Your task to perform on an android device: open chrome privacy settings Image 0: 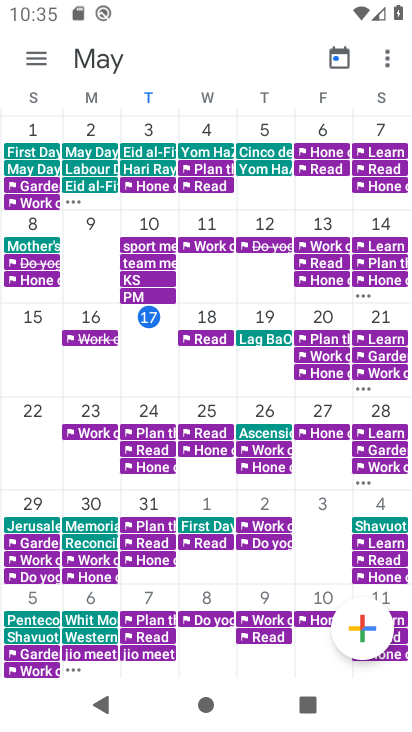
Step 0: press home button
Your task to perform on an android device: open chrome privacy settings Image 1: 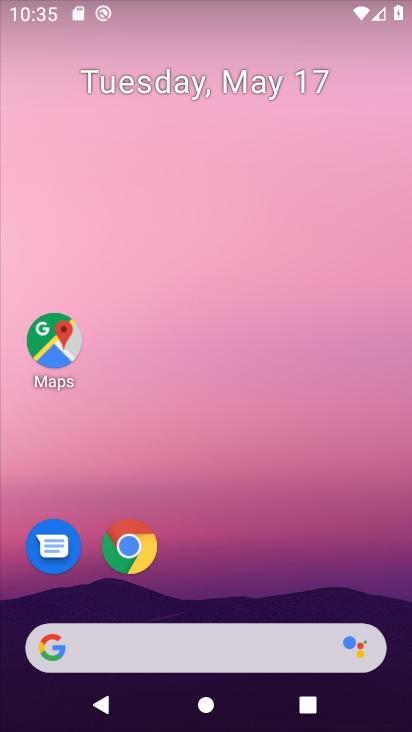
Step 1: drag from (246, 565) to (237, 165)
Your task to perform on an android device: open chrome privacy settings Image 2: 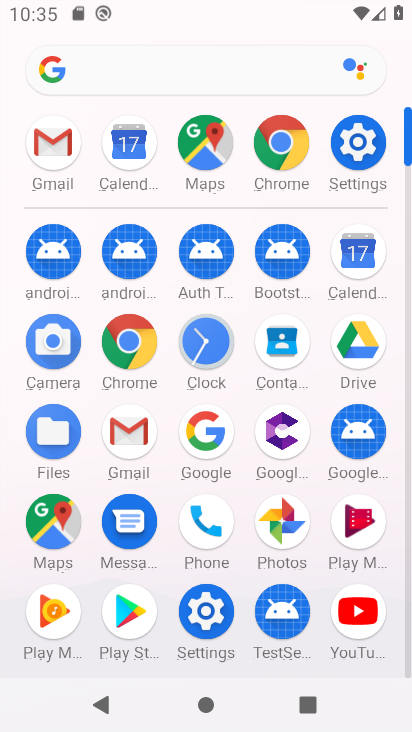
Step 2: click (365, 138)
Your task to perform on an android device: open chrome privacy settings Image 3: 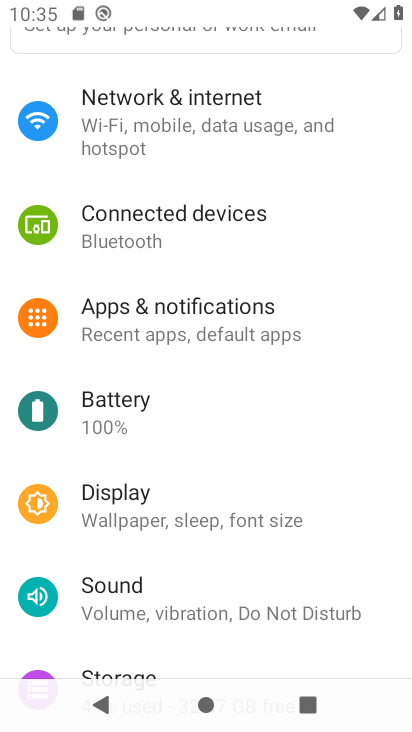
Step 3: press home button
Your task to perform on an android device: open chrome privacy settings Image 4: 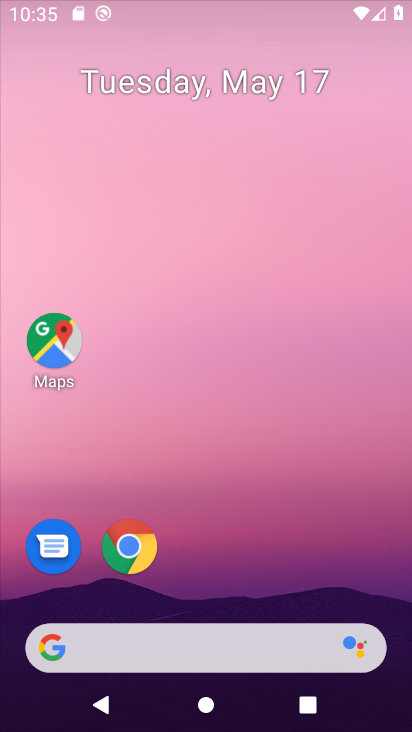
Step 4: drag from (251, 577) to (236, 182)
Your task to perform on an android device: open chrome privacy settings Image 5: 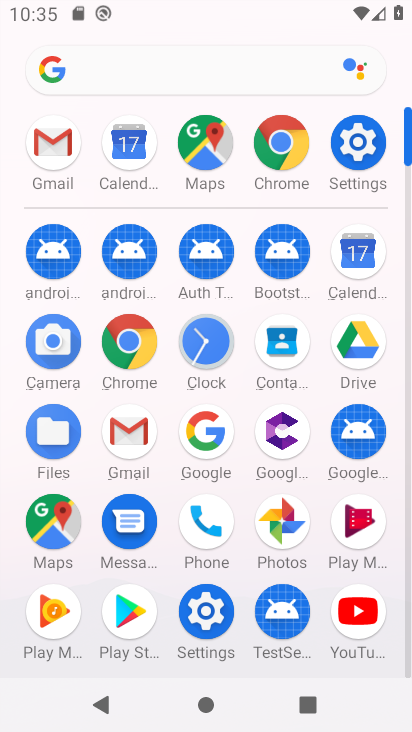
Step 5: click (273, 128)
Your task to perform on an android device: open chrome privacy settings Image 6: 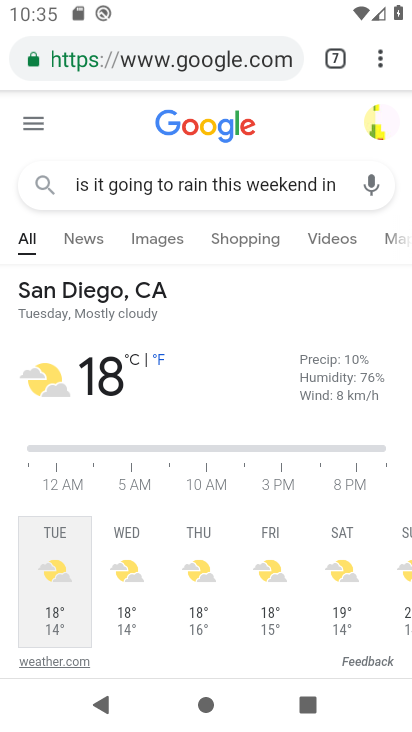
Step 6: click (380, 59)
Your task to perform on an android device: open chrome privacy settings Image 7: 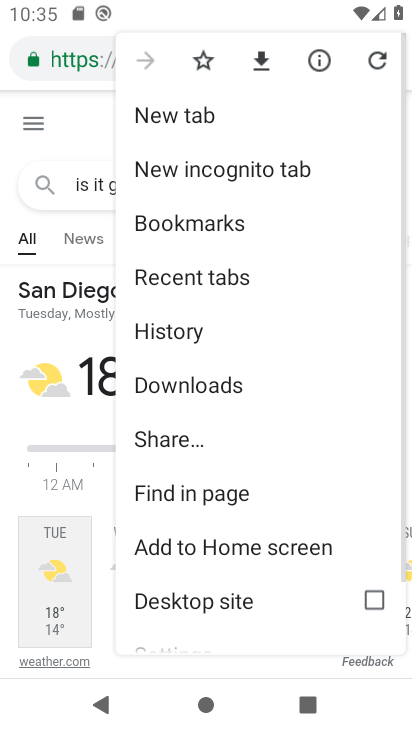
Step 7: drag from (279, 484) to (298, 182)
Your task to perform on an android device: open chrome privacy settings Image 8: 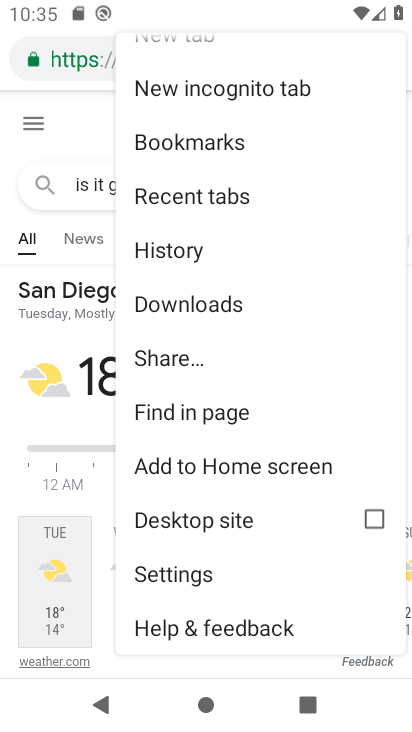
Step 8: click (218, 563)
Your task to perform on an android device: open chrome privacy settings Image 9: 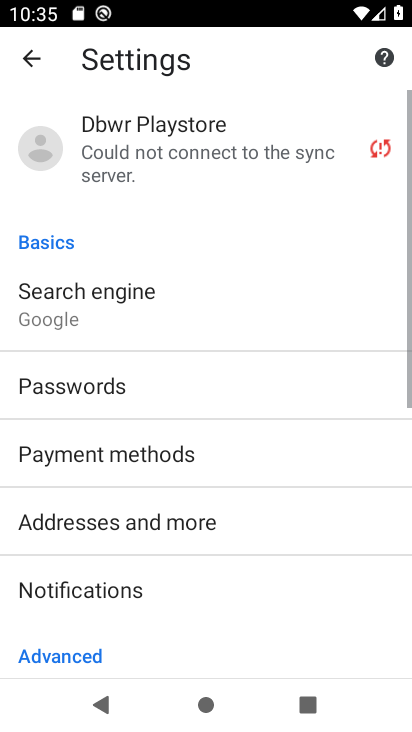
Step 9: drag from (168, 583) to (164, 258)
Your task to perform on an android device: open chrome privacy settings Image 10: 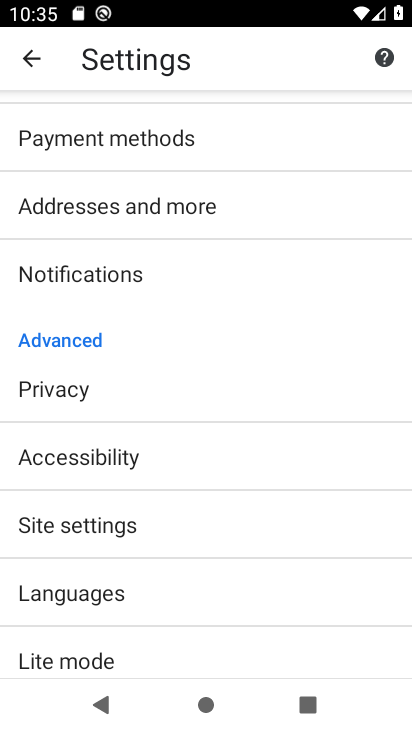
Step 10: click (87, 382)
Your task to perform on an android device: open chrome privacy settings Image 11: 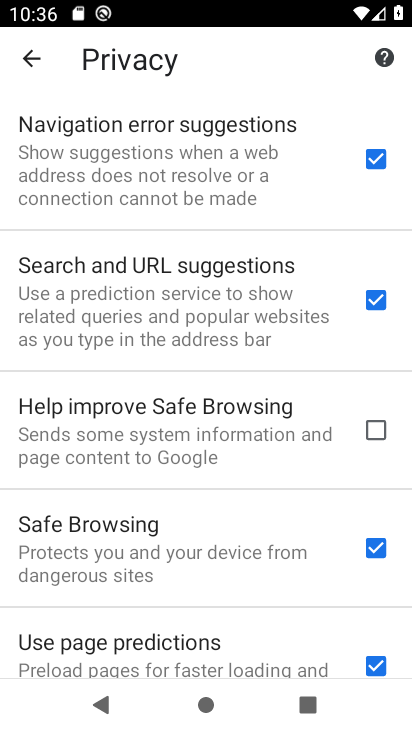
Step 11: task complete